Your task to perform on an android device: Do I have any events tomorrow? Image 0: 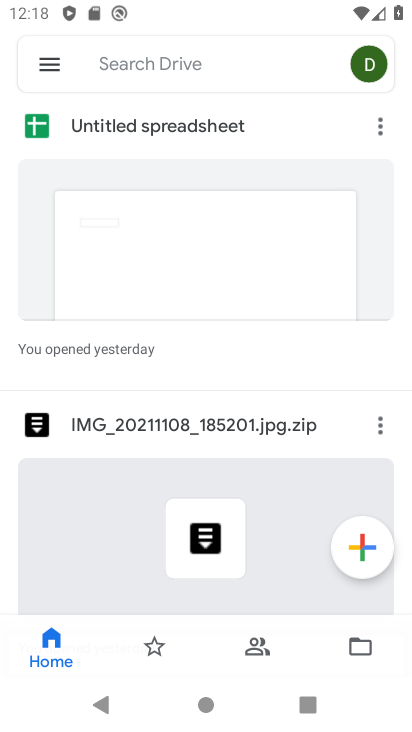
Step 0: press home button
Your task to perform on an android device: Do I have any events tomorrow? Image 1: 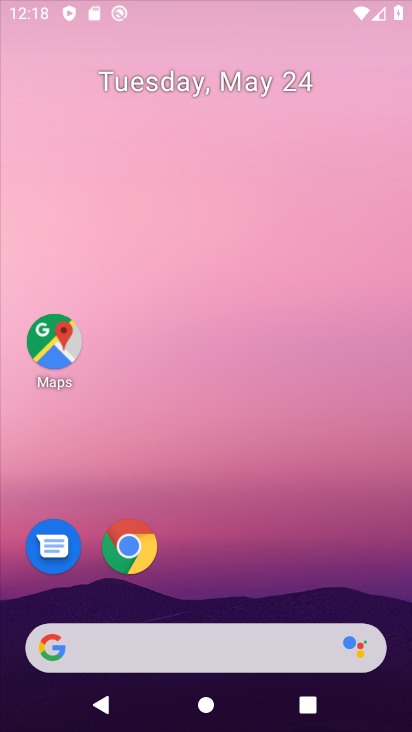
Step 1: drag from (251, 701) to (232, 83)
Your task to perform on an android device: Do I have any events tomorrow? Image 2: 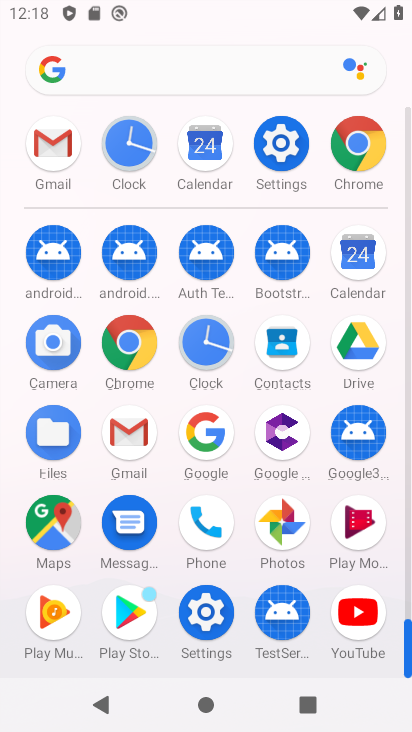
Step 2: click (358, 265)
Your task to perform on an android device: Do I have any events tomorrow? Image 3: 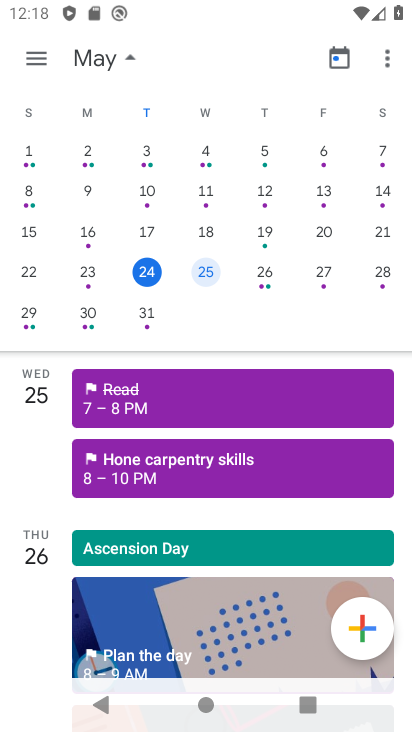
Step 3: click (207, 267)
Your task to perform on an android device: Do I have any events tomorrow? Image 4: 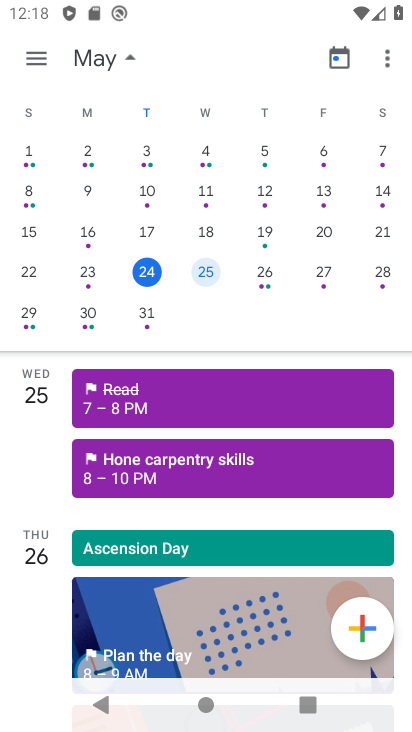
Step 4: task complete